Your task to perform on an android device: Open Google Chrome and click the shortcut for Amazon.com Image 0: 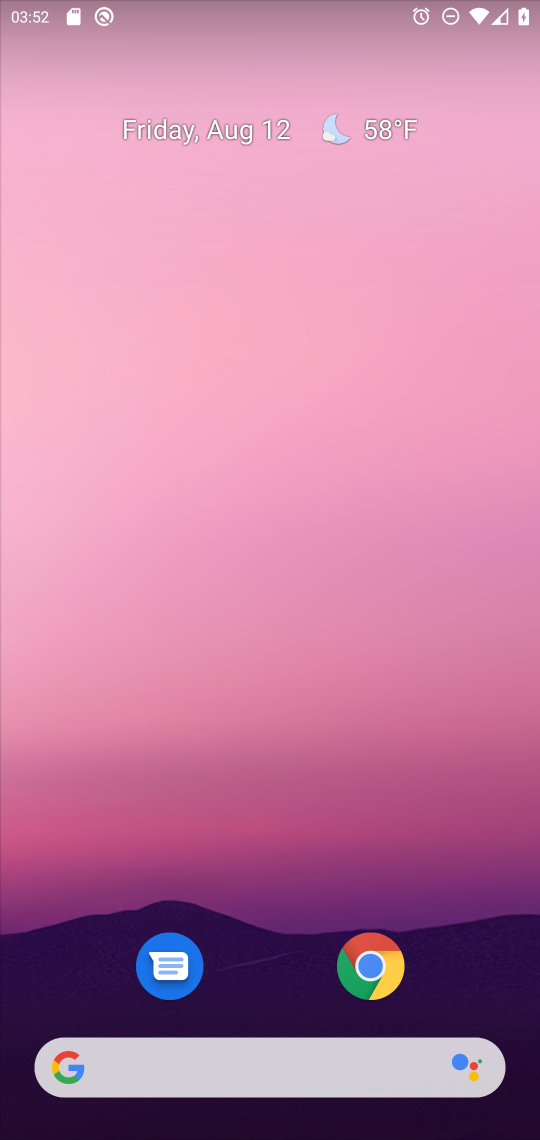
Step 0: drag from (260, 964) to (291, 279)
Your task to perform on an android device: Open Google Chrome and click the shortcut for Amazon.com Image 1: 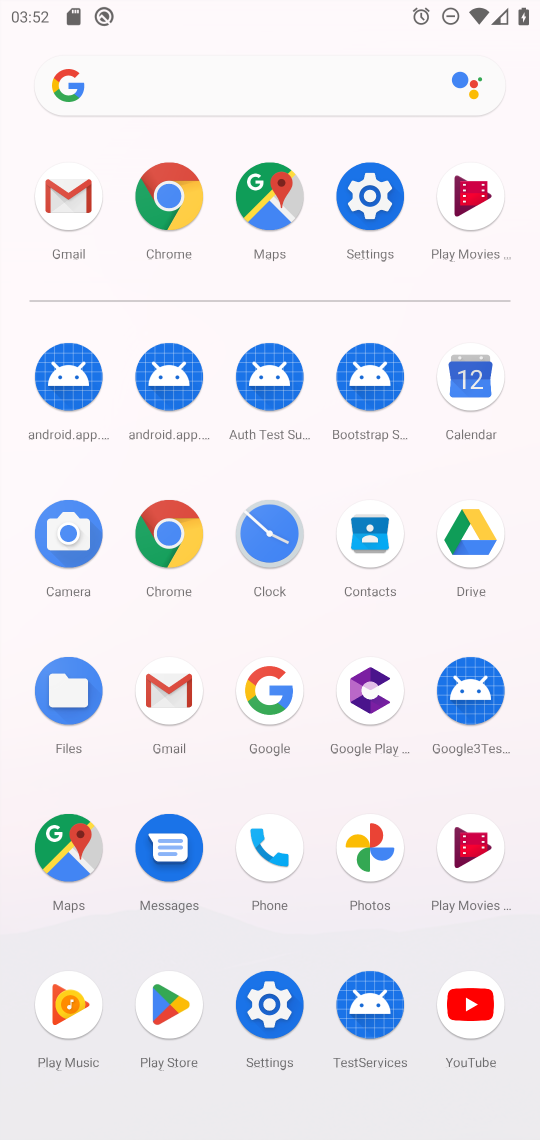
Step 1: click (164, 532)
Your task to perform on an android device: Open Google Chrome and click the shortcut for Amazon.com Image 2: 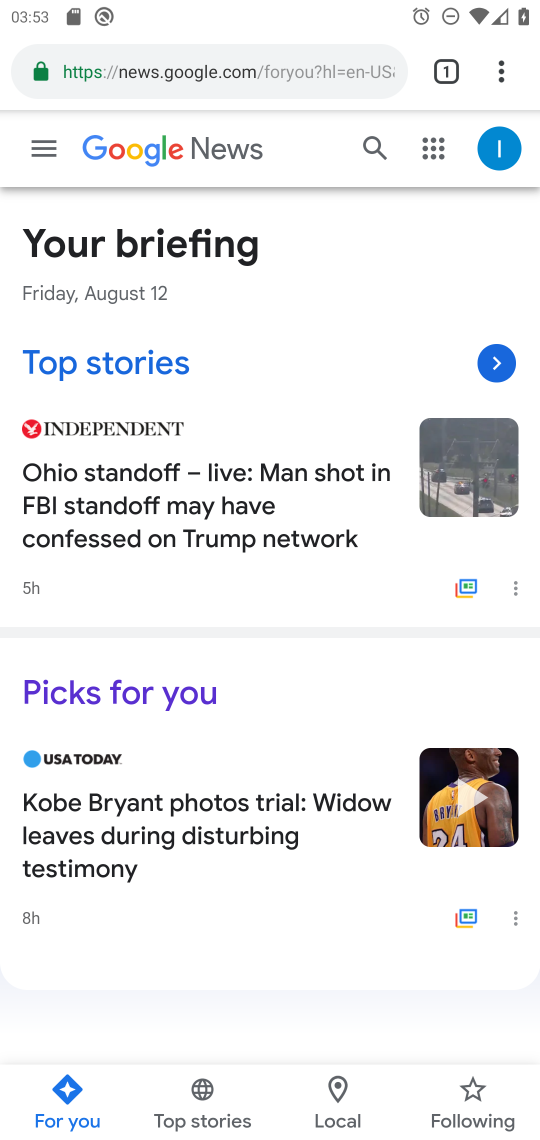
Step 2: drag from (507, 53) to (307, 158)
Your task to perform on an android device: Open Google Chrome and click the shortcut for Amazon.com Image 3: 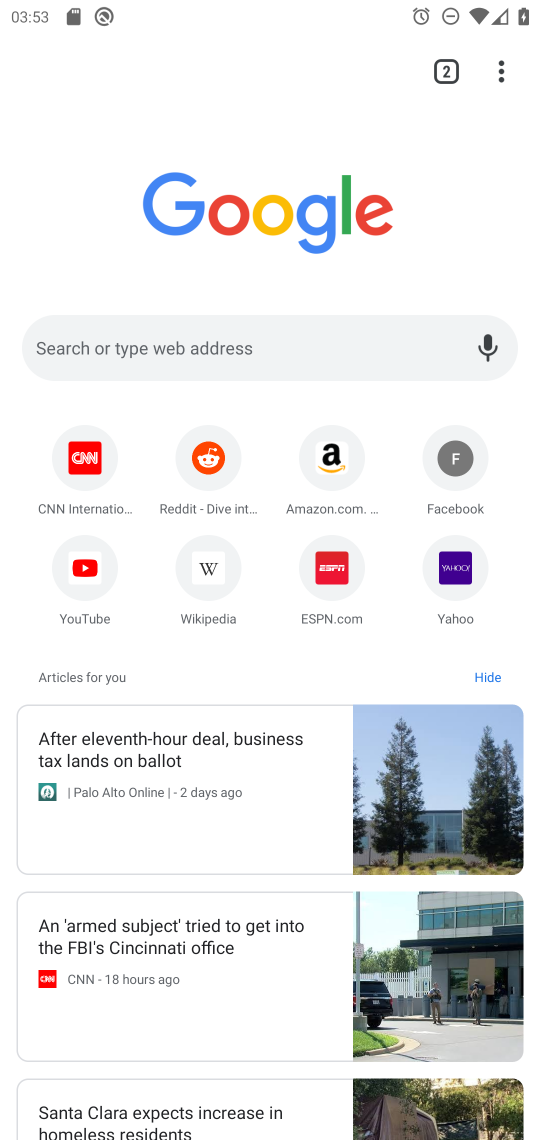
Step 3: click (350, 463)
Your task to perform on an android device: Open Google Chrome and click the shortcut for Amazon.com Image 4: 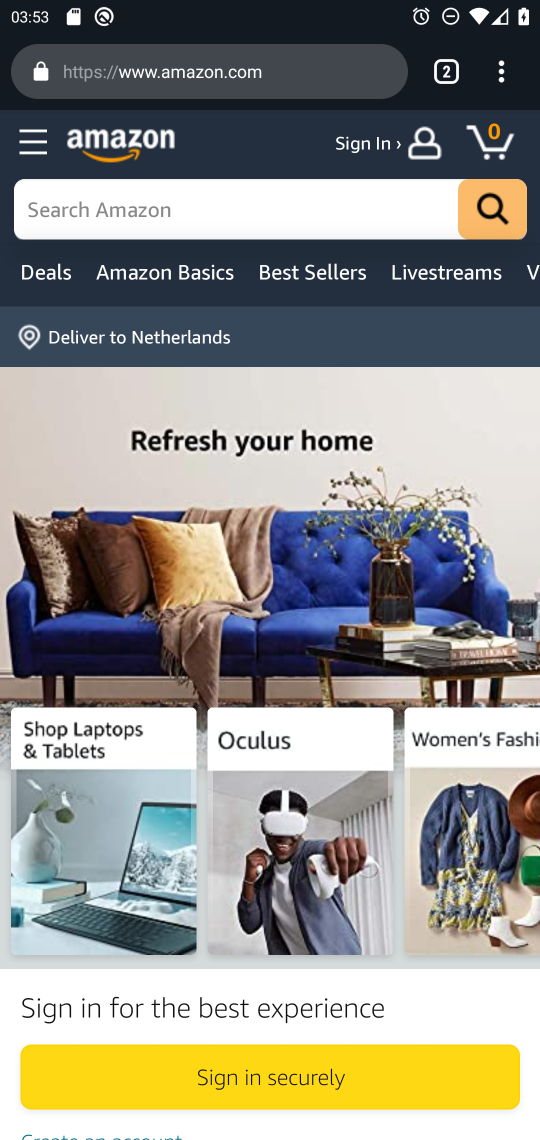
Step 4: task complete